Your task to perform on an android device: check battery use Image 0: 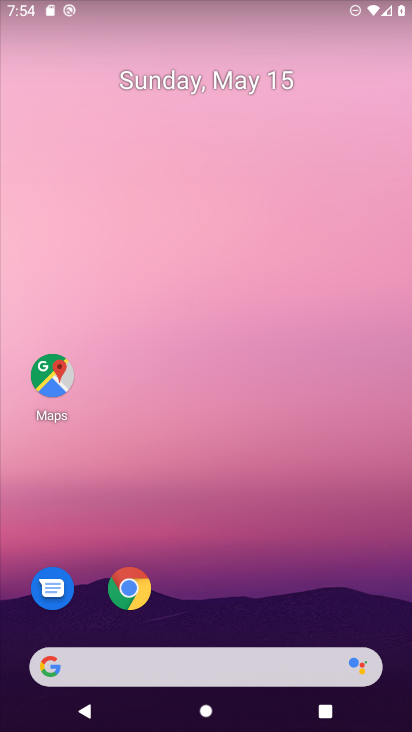
Step 0: press home button
Your task to perform on an android device: check battery use Image 1: 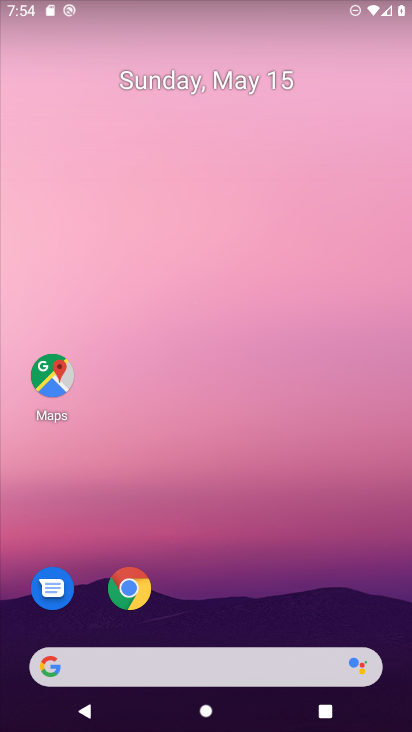
Step 1: drag from (204, 618) to (193, 19)
Your task to perform on an android device: check battery use Image 2: 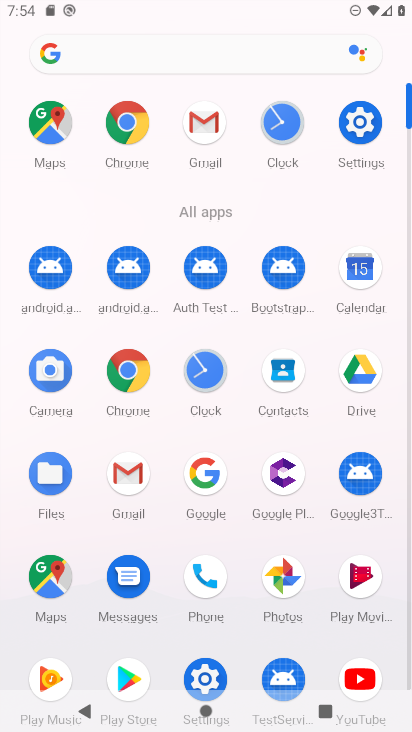
Step 2: click (371, 108)
Your task to perform on an android device: check battery use Image 3: 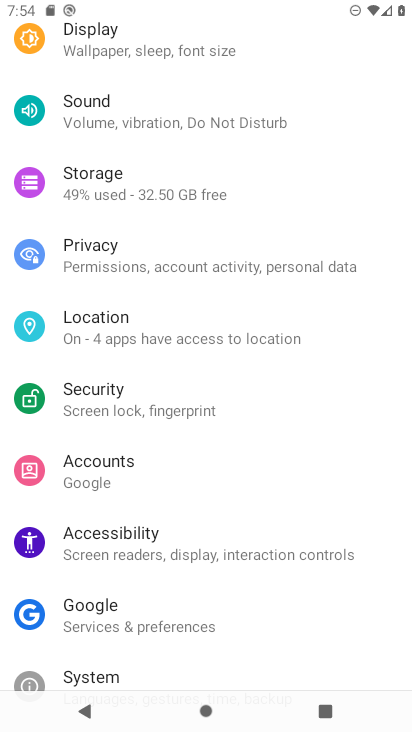
Step 3: drag from (113, 135) to (137, 498)
Your task to perform on an android device: check battery use Image 4: 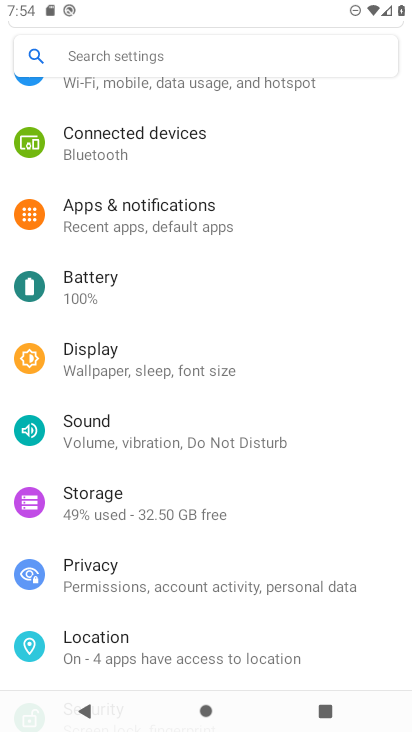
Step 4: click (125, 279)
Your task to perform on an android device: check battery use Image 5: 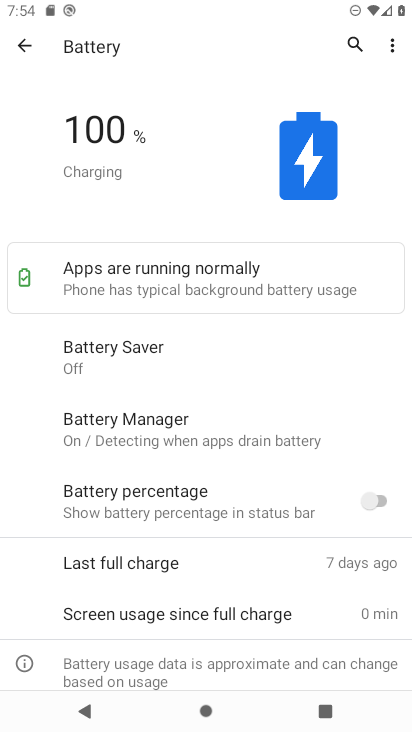
Step 5: click (389, 49)
Your task to perform on an android device: check battery use Image 6: 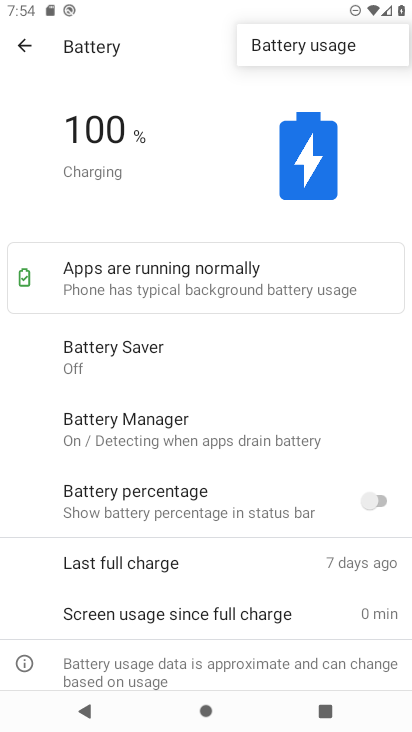
Step 6: click (272, 52)
Your task to perform on an android device: check battery use Image 7: 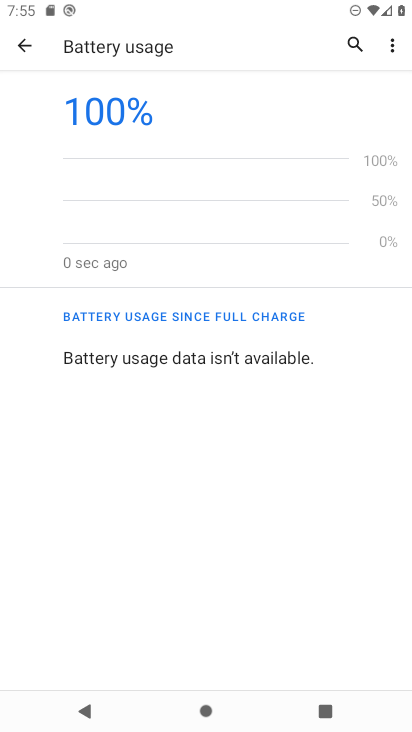
Step 7: task complete